Your task to perform on an android device: turn pop-ups on in chrome Image 0: 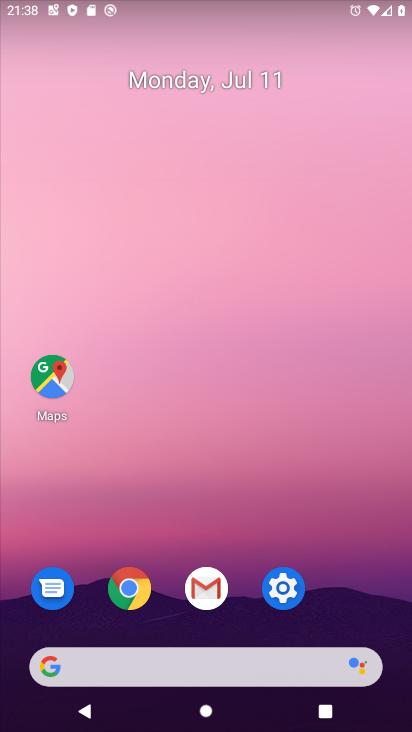
Step 0: click (132, 591)
Your task to perform on an android device: turn pop-ups on in chrome Image 1: 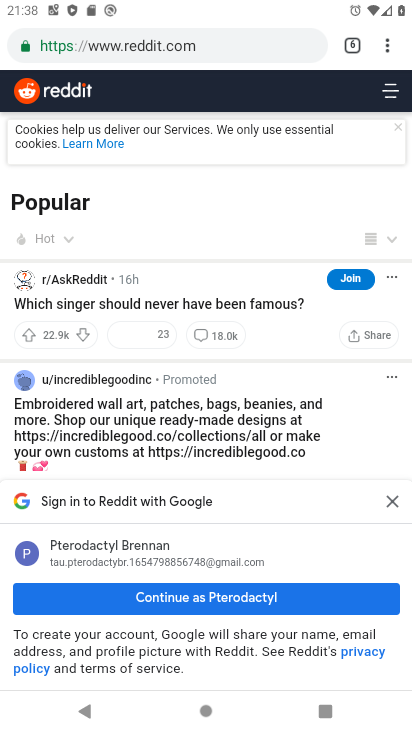
Step 1: click (386, 52)
Your task to perform on an android device: turn pop-ups on in chrome Image 2: 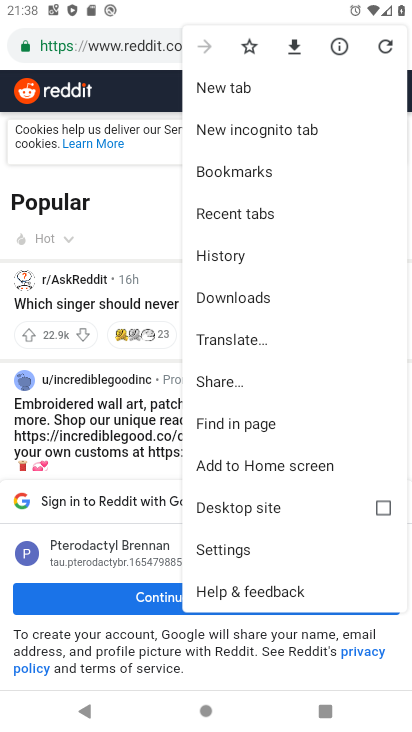
Step 2: click (234, 546)
Your task to perform on an android device: turn pop-ups on in chrome Image 3: 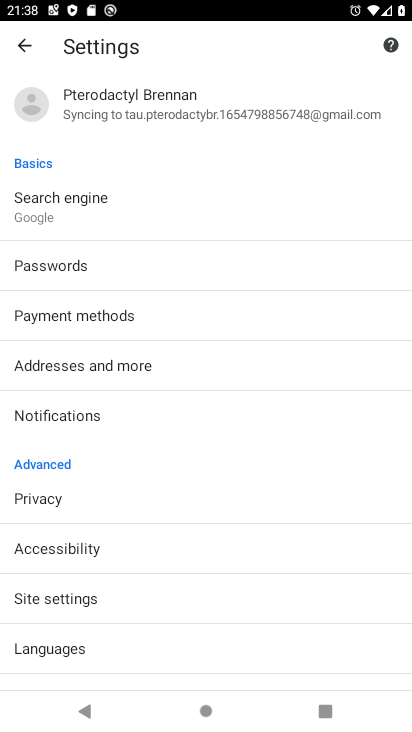
Step 3: click (71, 595)
Your task to perform on an android device: turn pop-ups on in chrome Image 4: 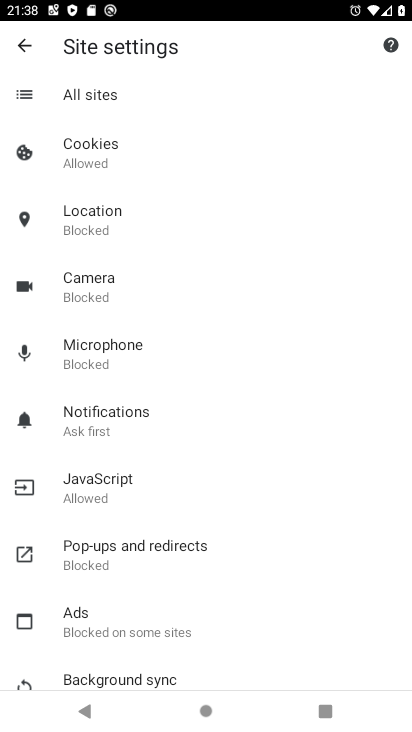
Step 4: click (97, 561)
Your task to perform on an android device: turn pop-ups on in chrome Image 5: 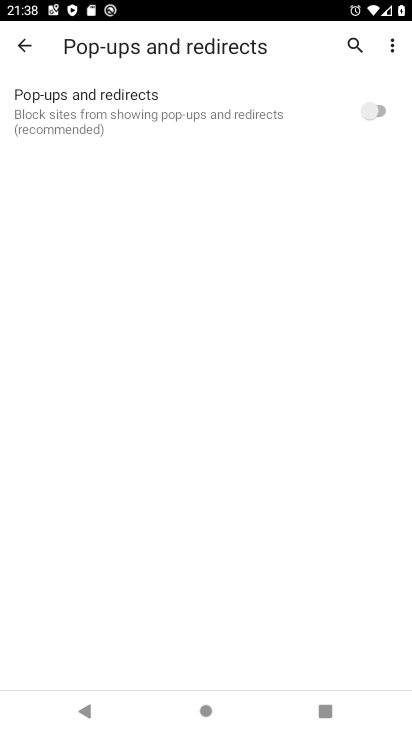
Step 5: click (368, 102)
Your task to perform on an android device: turn pop-ups on in chrome Image 6: 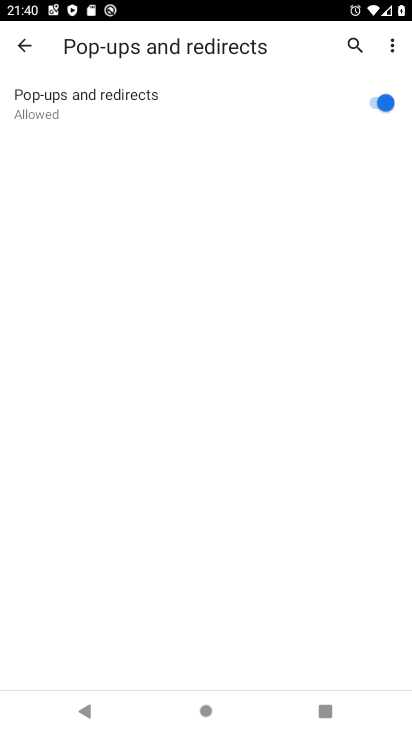
Step 6: task complete